Your task to perform on an android device: visit the assistant section in the google photos Image 0: 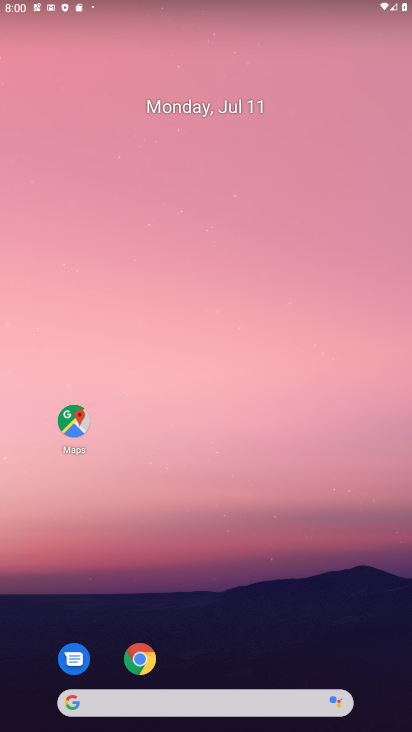
Step 0: drag from (202, 664) to (171, 304)
Your task to perform on an android device: visit the assistant section in the google photos Image 1: 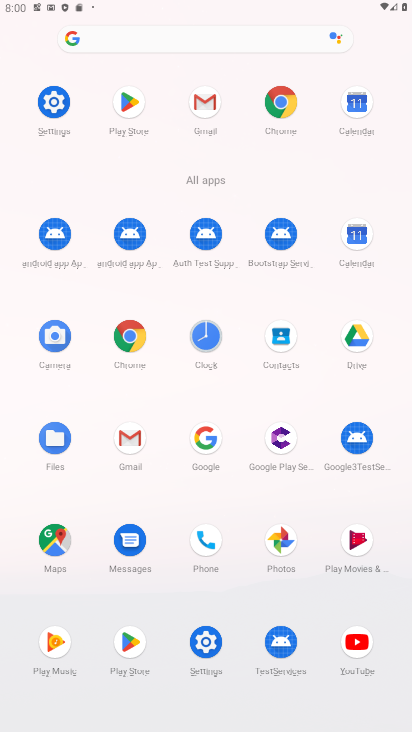
Step 1: click (283, 530)
Your task to perform on an android device: visit the assistant section in the google photos Image 2: 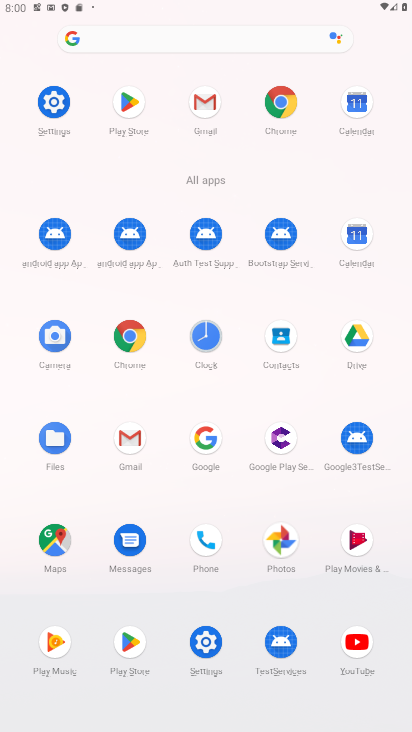
Step 2: click (283, 530)
Your task to perform on an android device: visit the assistant section in the google photos Image 3: 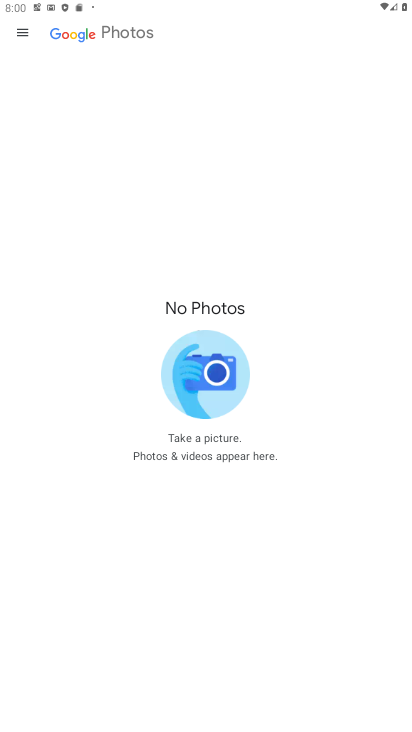
Step 3: click (18, 38)
Your task to perform on an android device: visit the assistant section in the google photos Image 4: 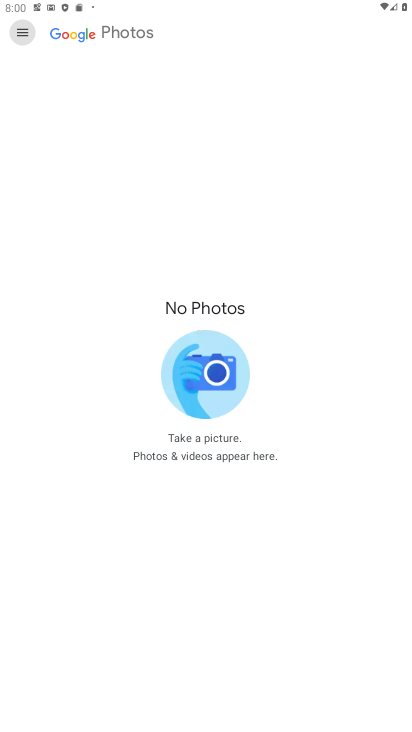
Step 4: click (18, 37)
Your task to perform on an android device: visit the assistant section in the google photos Image 5: 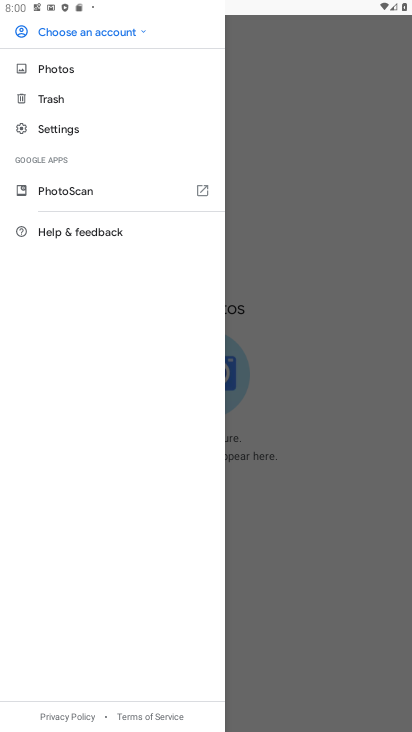
Step 5: click (48, 123)
Your task to perform on an android device: visit the assistant section in the google photos Image 6: 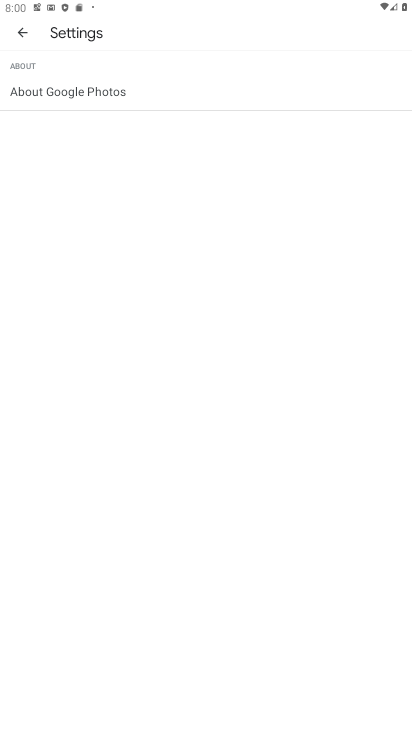
Step 6: click (18, 30)
Your task to perform on an android device: visit the assistant section in the google photos Image 7: 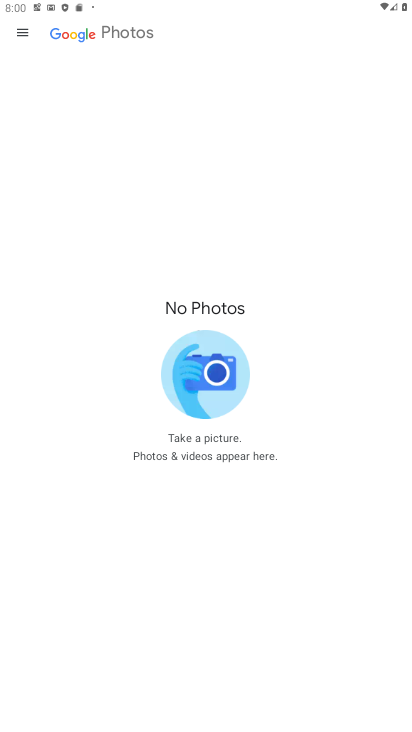
Step 7: click (29, 36)
Your task to perform on an android device: visit the assistant section in the google photos Image 8: 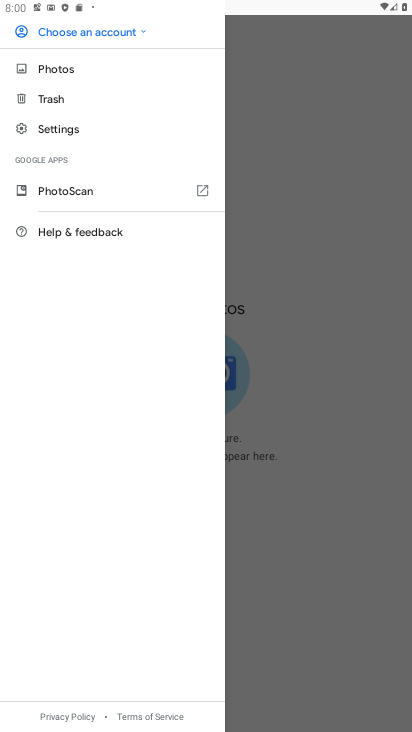
Step 8: press back button
Your task to perform on an android device: visit the assistant section in the google photos Image 9: 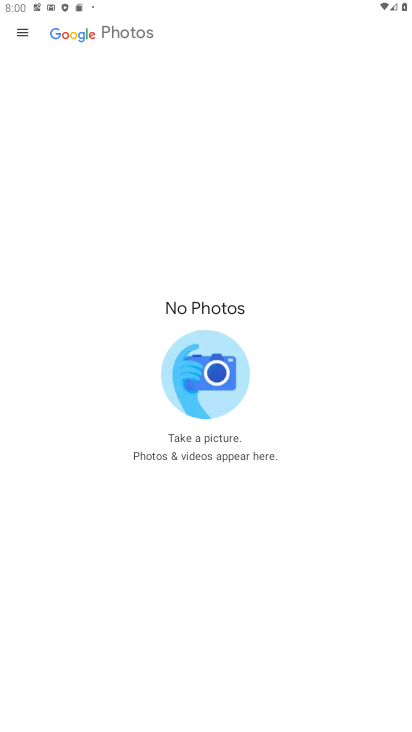
Step 9: press back button
Your task to perform on an android device: visit the assistant section in the google photos Image 10: 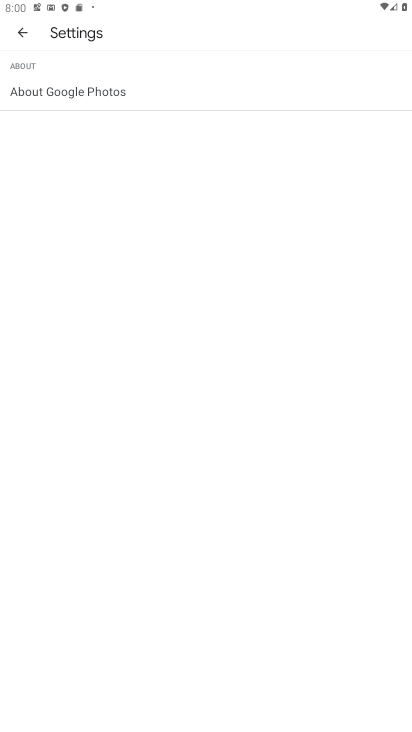
Step 10: click (18, 20)
Your task to perform on an android device: visit the assistant section in the google photos Image 11: 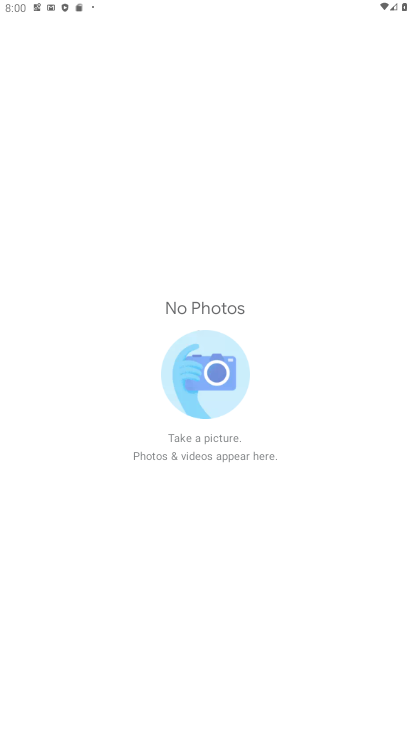
Step 11: click (18, 20)
Your task to perform on an android device: visit the assistant section in the google photos Image 12: 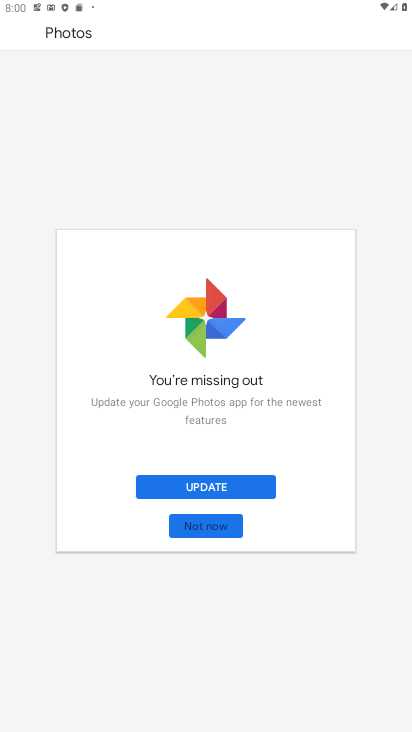
Step 12: press back button
Your task to perform on an android device: visit the assistant section in the google photos Image 13: 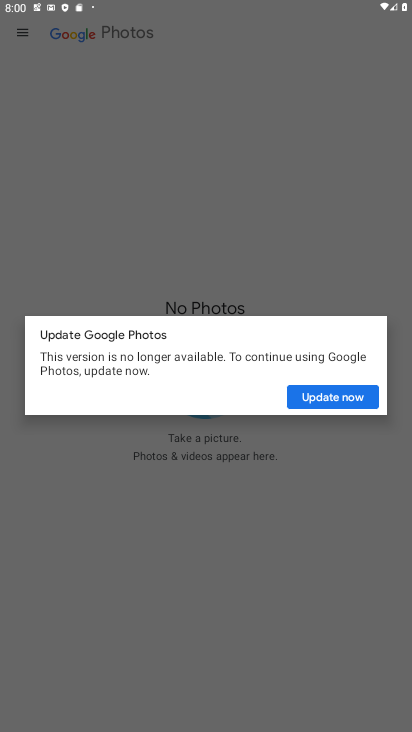
Step 13: click (346, 384)
Your task to perform on an android device: visit the assistant section in the google photos Image 14: 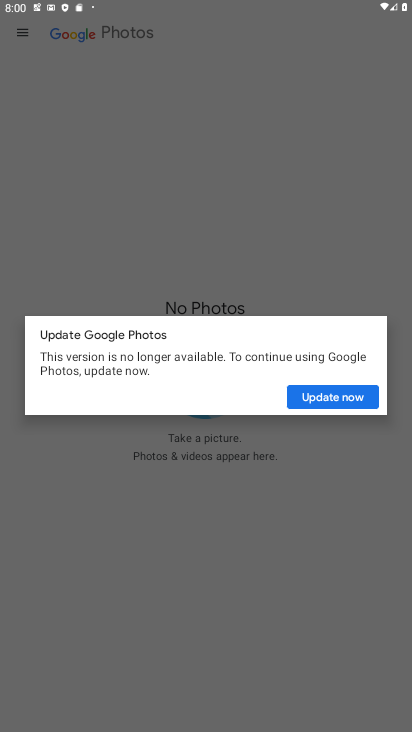
Step 14: click (346, 384)
Your task to perform on an android device: visit the assistant section in the google photos Image 15: 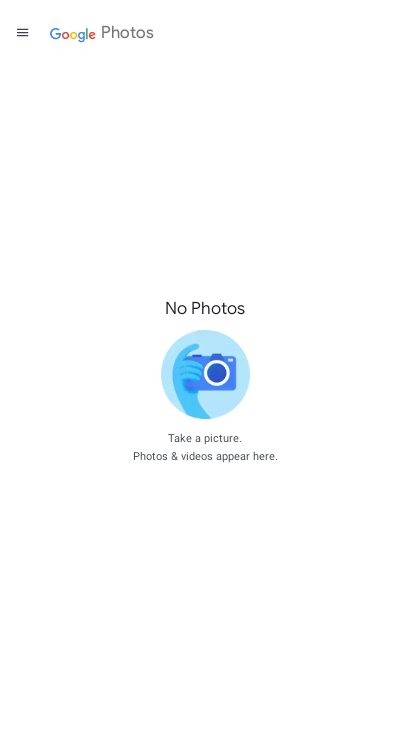
Step 15: click (344, 392)
Your task to perform on an android device: visit the assistant section in the google photos Image 16: 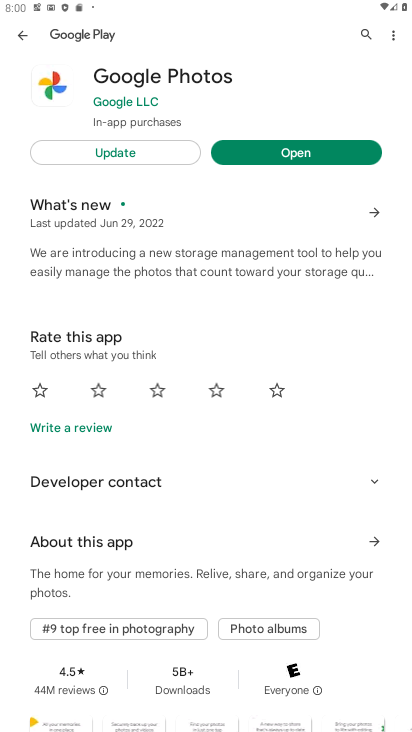
Step 16: click (142, 150)
Your task to perform on an android device: visit the assistant section in the google photos Image 17: 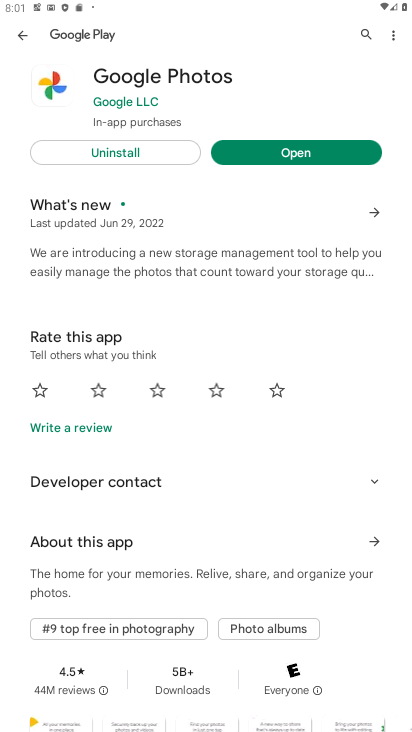
Step 17: click (306, 157)
Your task to perform on an android device: visit the assistant section in the google photos Image 18: 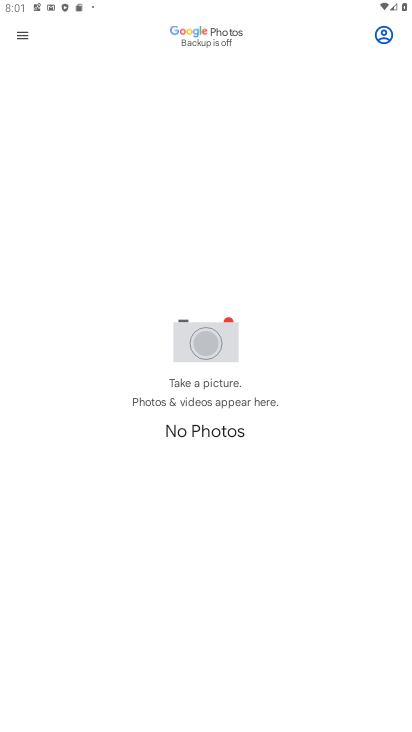
Step 18: task complete